Your task to perform on an android device: open a bookmark in the chrome app Image 0: 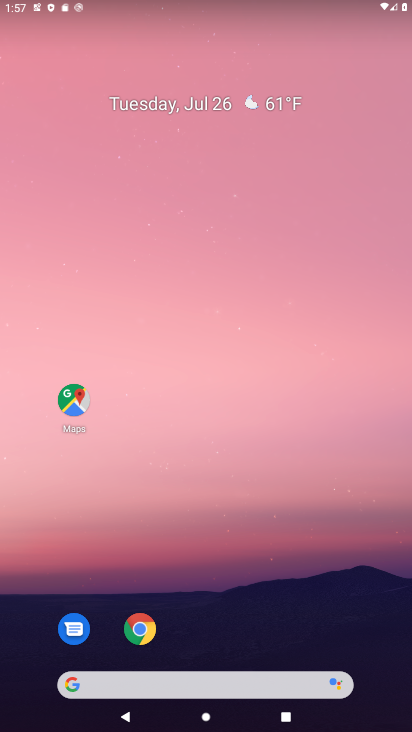
Step 0: click (151, 623)
Your task to perform on an android device: open a bookmark in the chrome app Image 1: 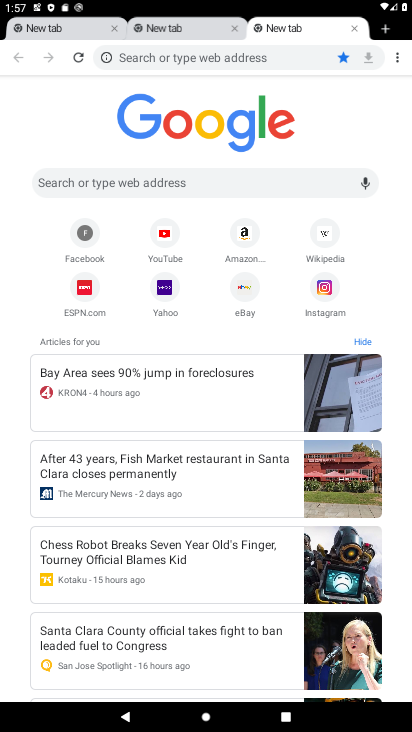
Step 1: click (399, 57)
Your task to perform on an android device: open a bookmark in the chrome app Image 2: 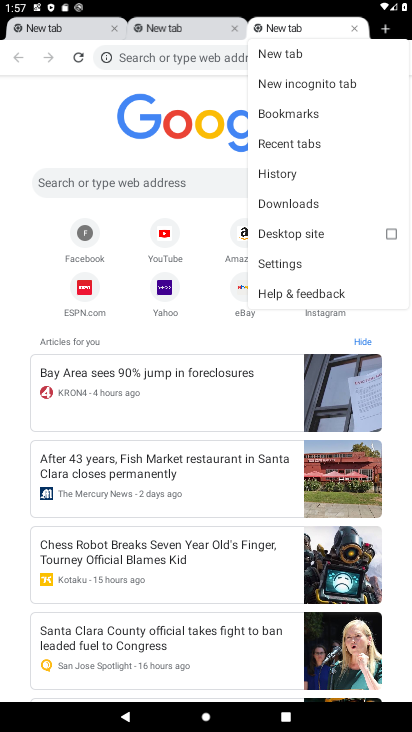
Step 2: click (325, 128)
Your task to perform on an android device: open a bookmark in the chrome app Image 3: 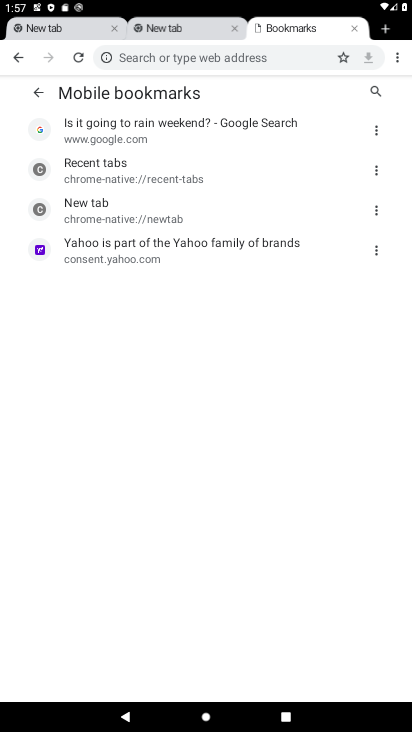
Step 3: click (166, 129)
Your task to perform on an android device: open a bookmark in the chrome app Image 4: 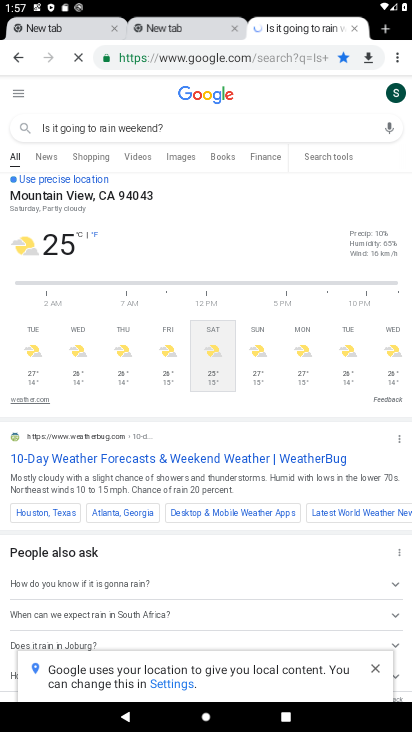
Step 4: task complete